Your task to perform on an android device: Search for a new highlighter Image 0: 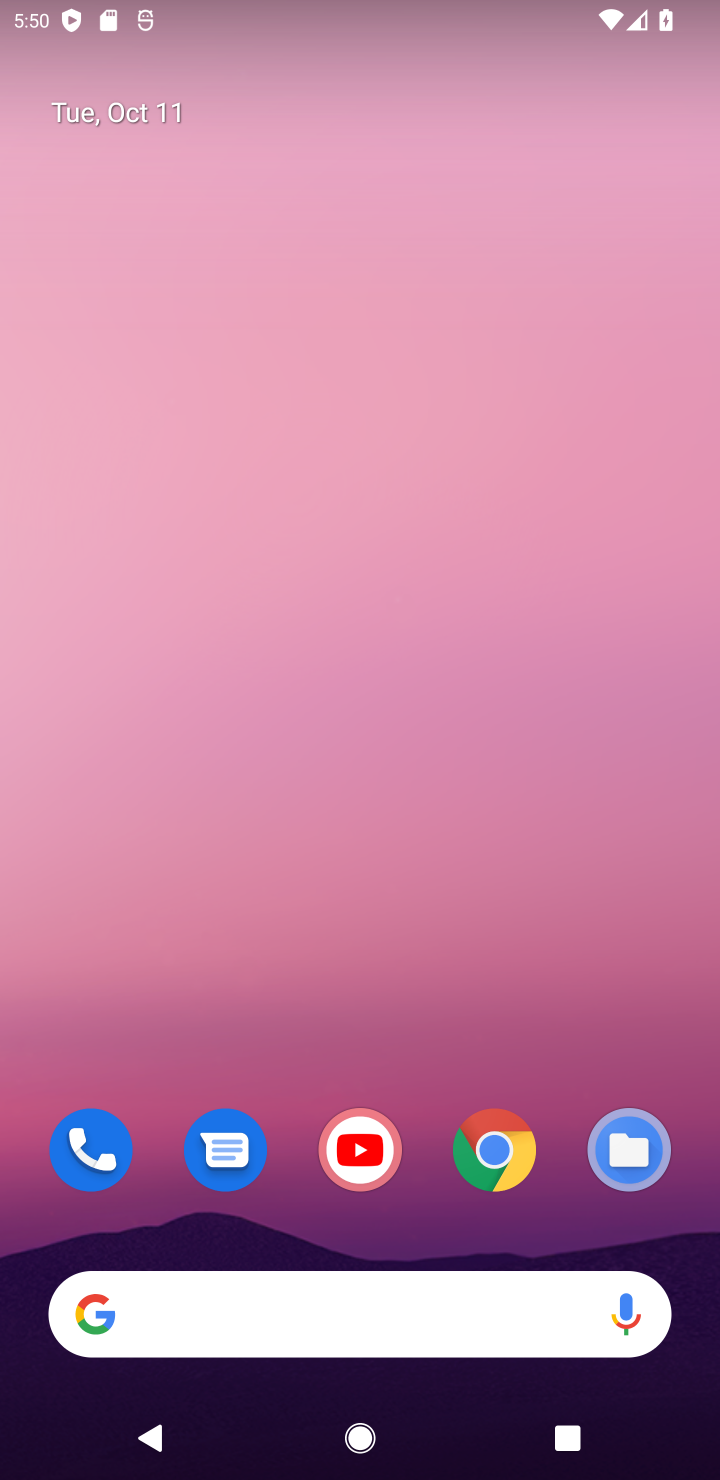
Step 0: click (485, 1161)
Your task to perform on an android device: Search for a new highlighter Image 1: 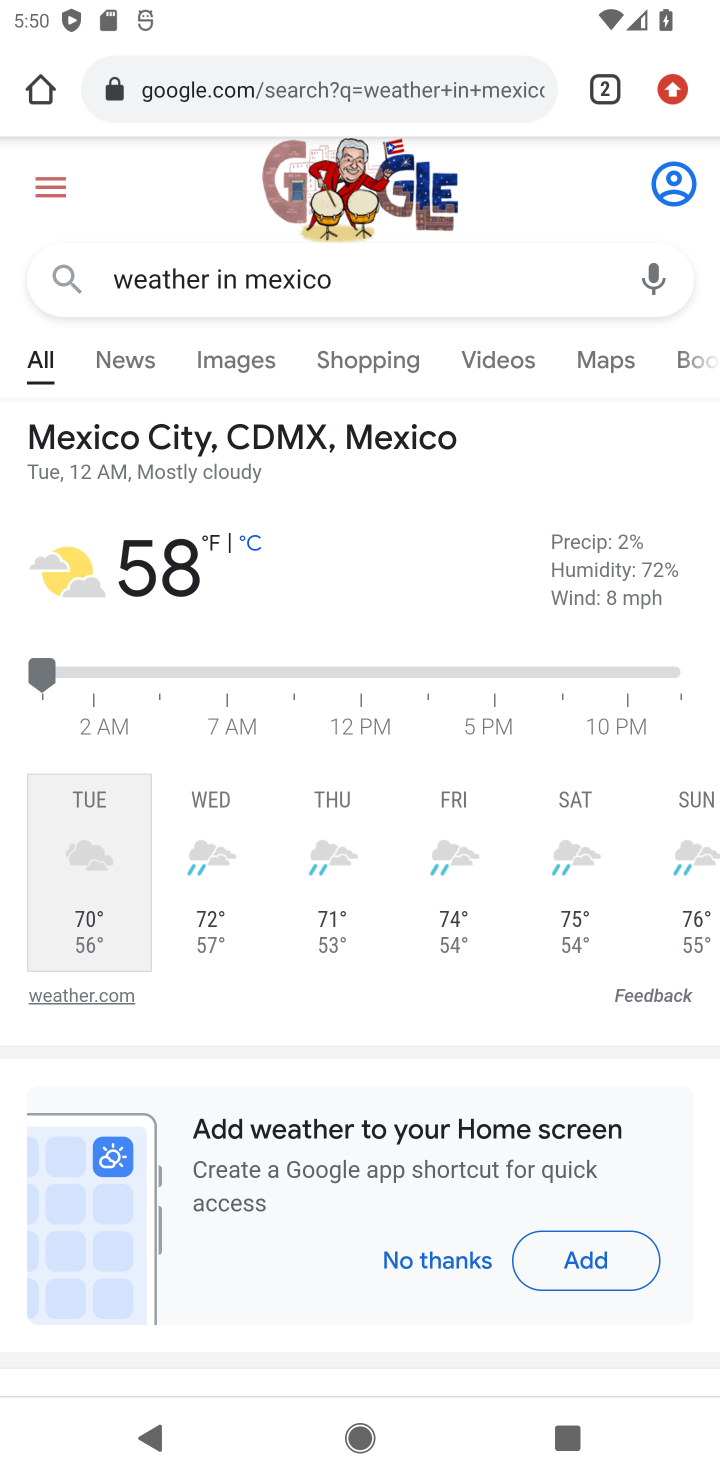
Step 1: click (429, 81)
Your task to perform on an android device: Search for a new highlighter Image 2: 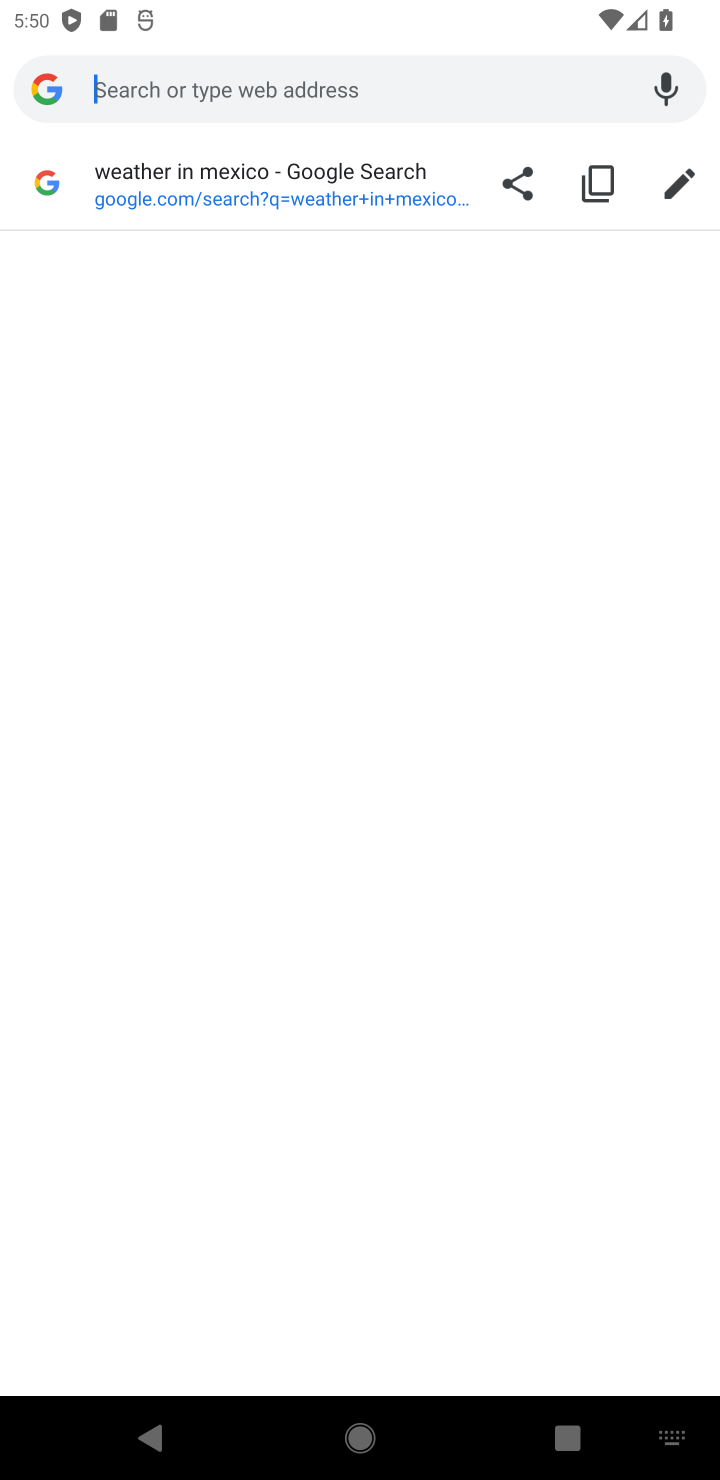
Step 2: type "new highlighter "
Your task to perform on an android device: Search for a new highlighter Image 3: 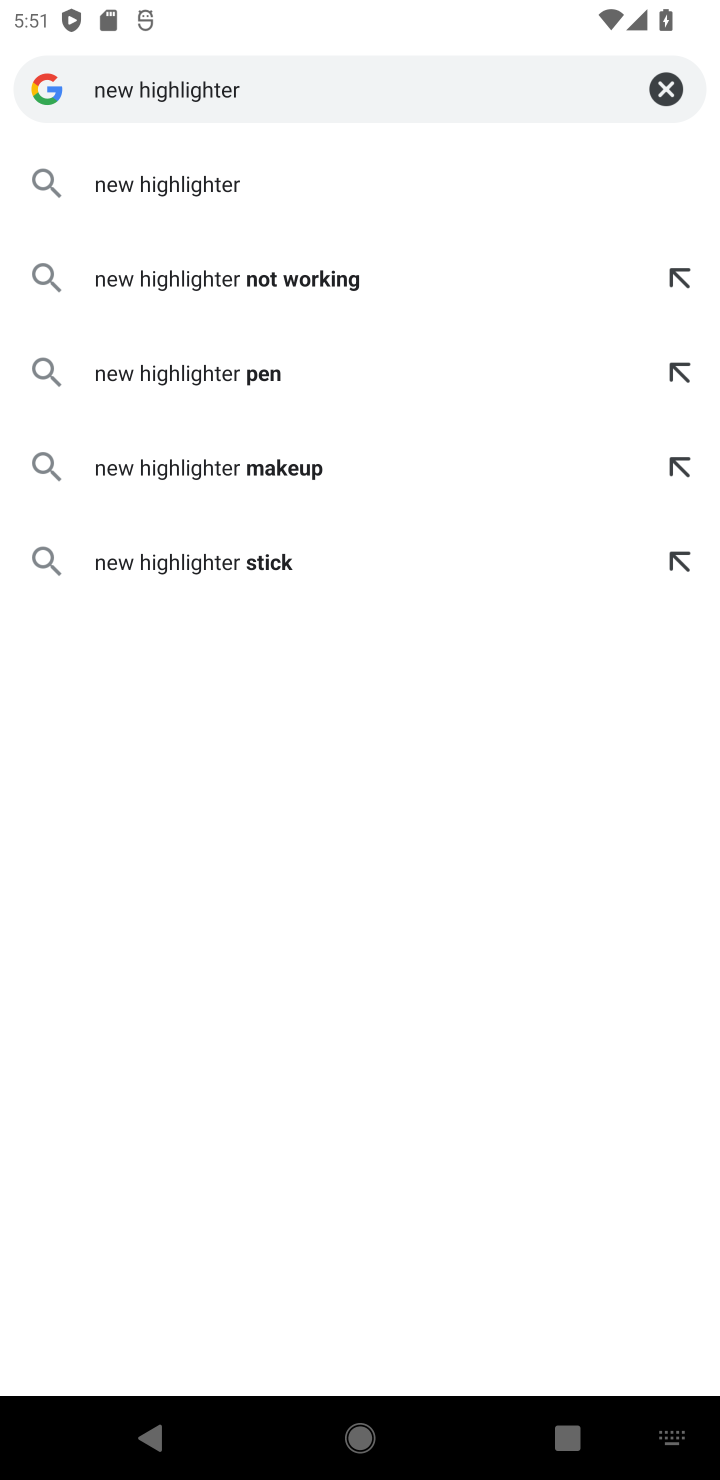
Step 3: click (147, 192)
Your task to perform on an android device: Search for a new highlighter Image 4: 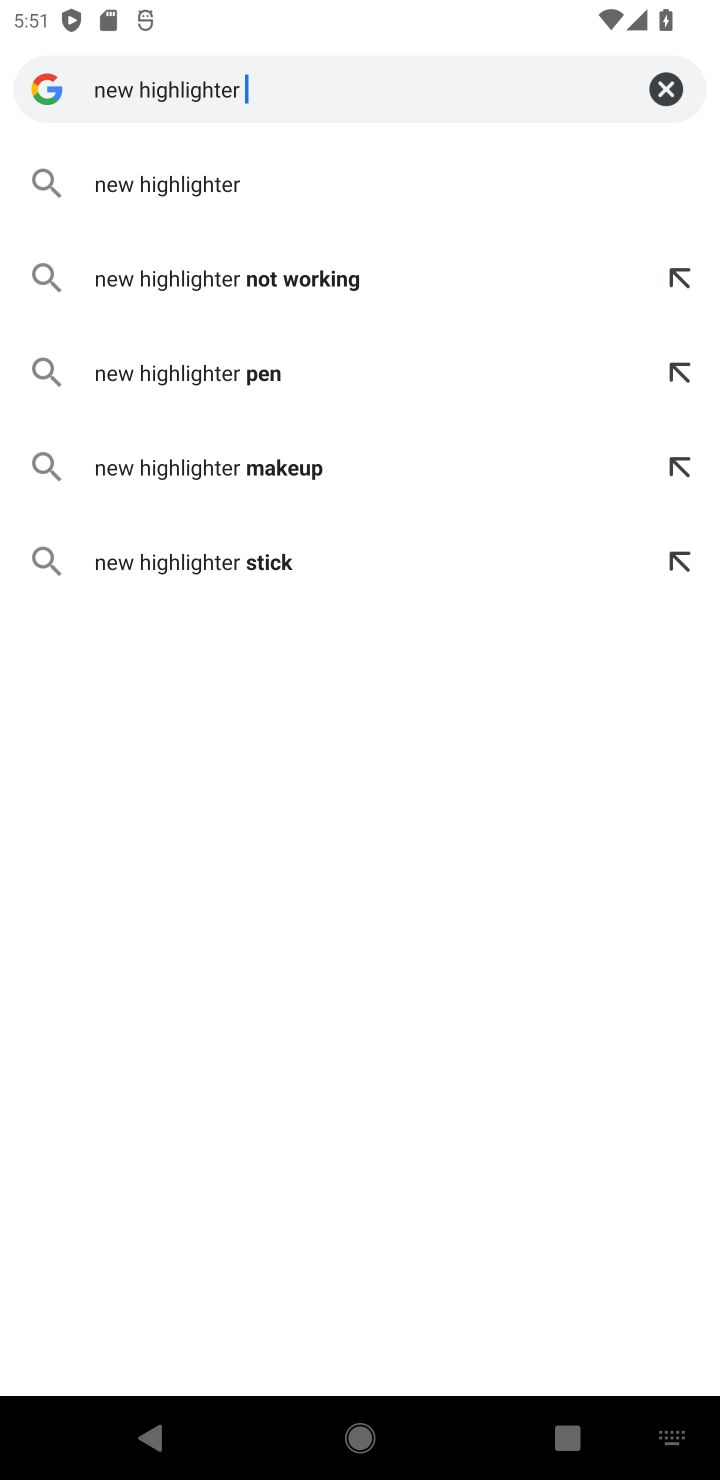
Step 4: click (164, 190)
Your task to perform on an android device: Search for a new highlighter Image 5: 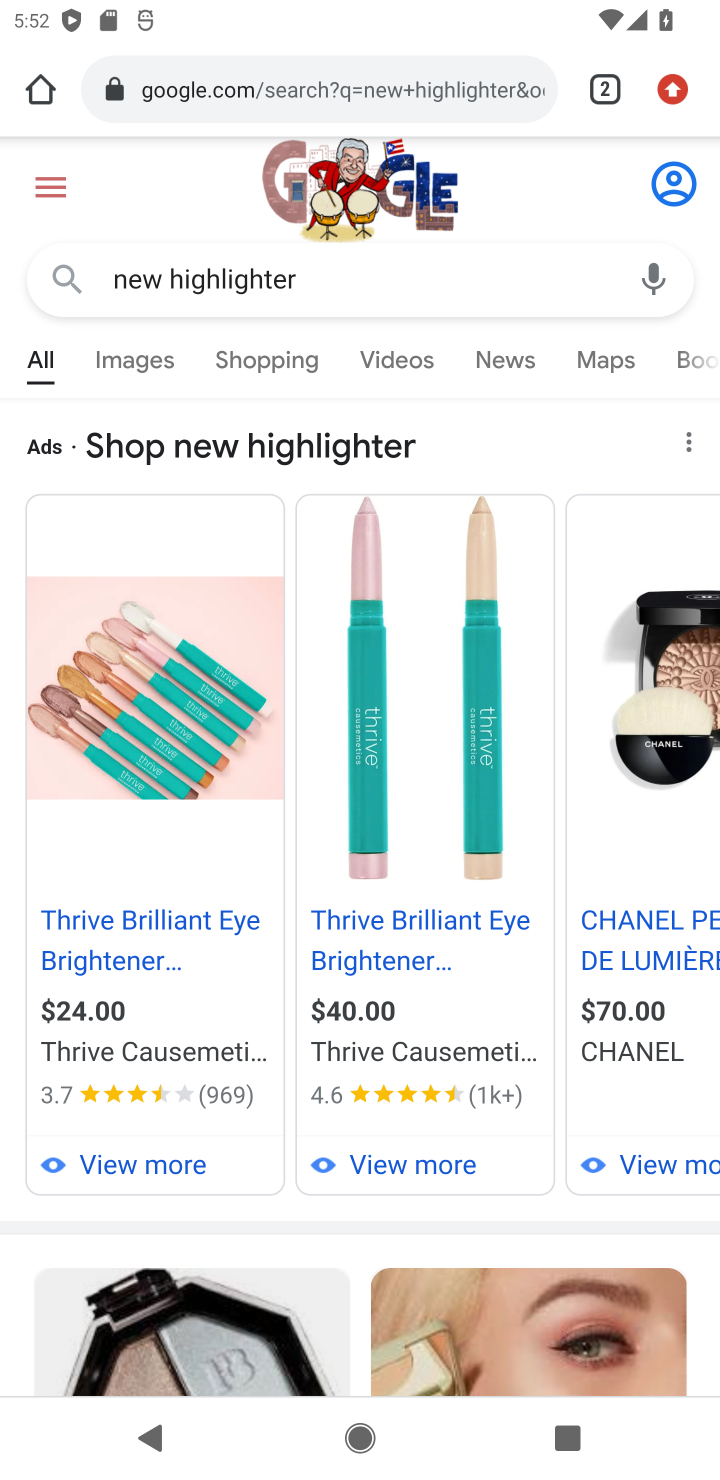
Step 5: task complete